Your task to perform on an android device: Turn on the flashlight Image 0: 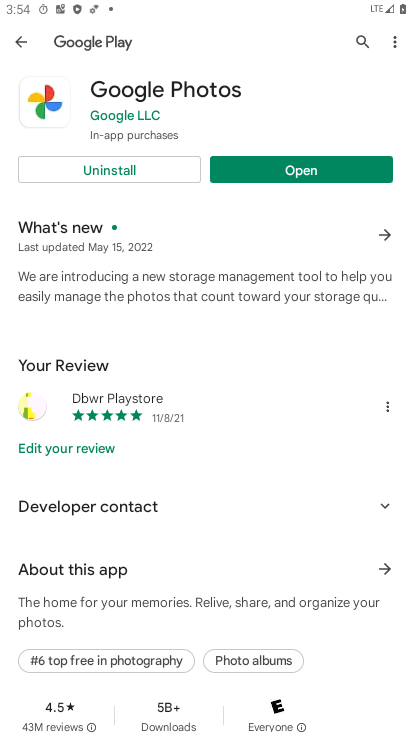
Step 0: press home button
Your task to perform on an android device: Turn on the flashlight Image 1: 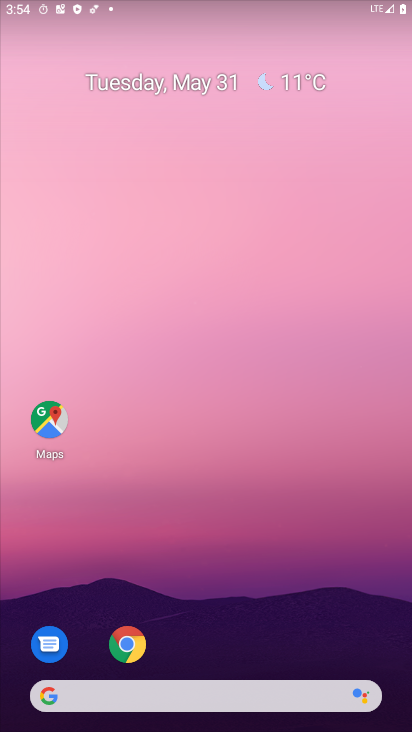
Step 1: drag from (262, 636) to (280, 245)
Your task to perform on an android device: Turn on the flashlight Image 2: 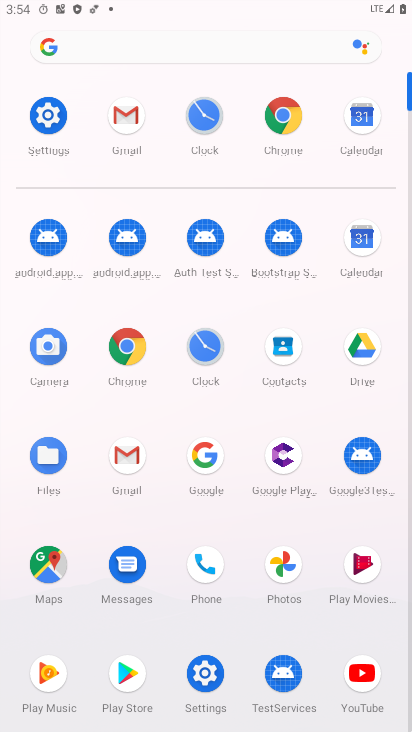
Step 2: click (45, 110)
Your task to perform on an android device: Turn on the flashlight Image 3: 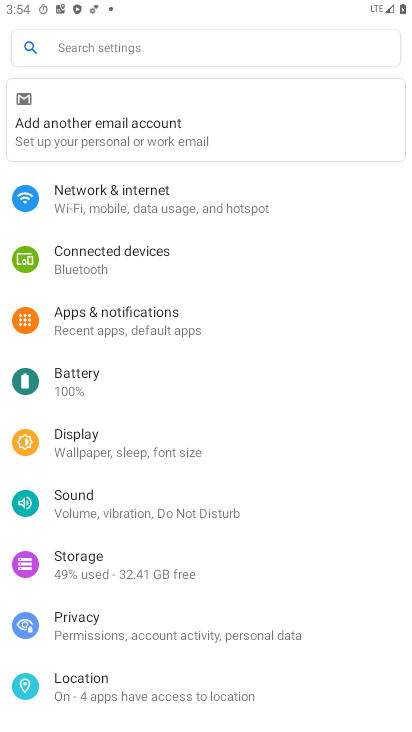
Step 3: click (212, 338)
Your task to perform on an android device: Turn on the flashlight Image 4: 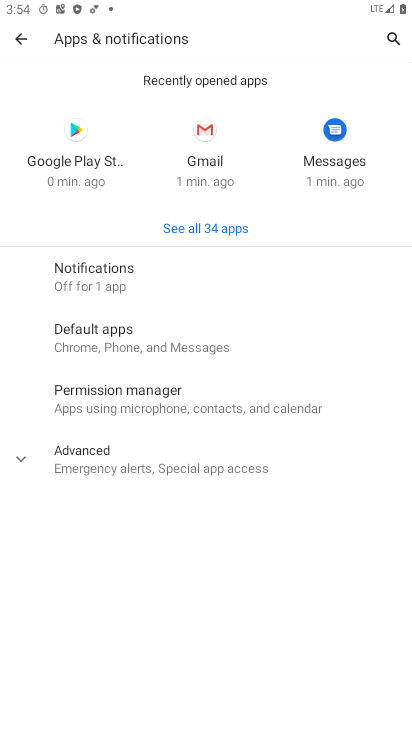
Step 4: click (161, 466)
Your task to perform on an android device: Turn on the flashlight Image 5: 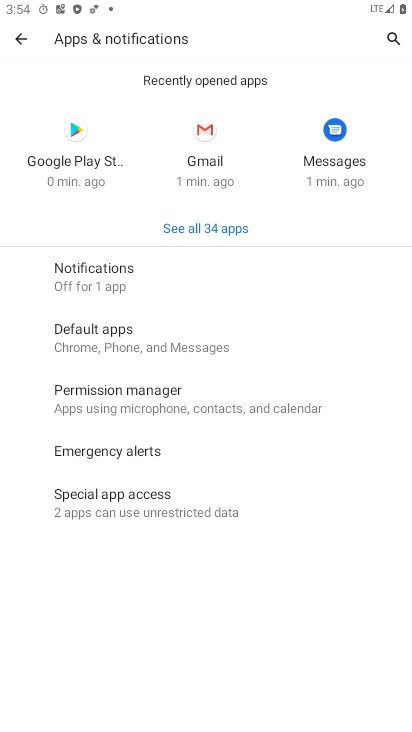
Step 5: click (184, 490)
Your task to perform on an android device: Turn on the flashlight Image 6: 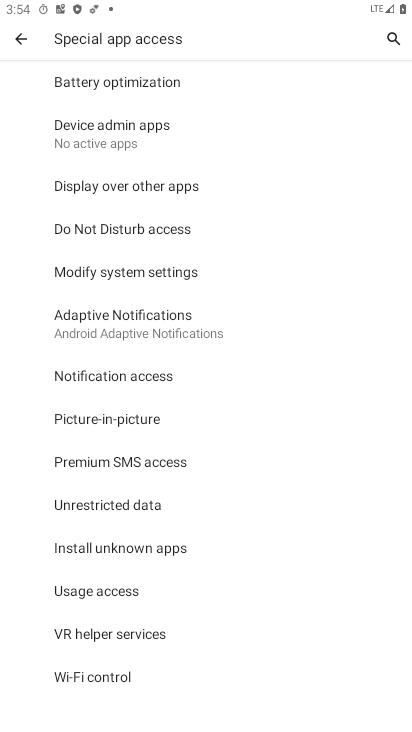
Step 6: task complete